Your task to perform on an android device: turn vacation reply on in the gmail app Image 0: 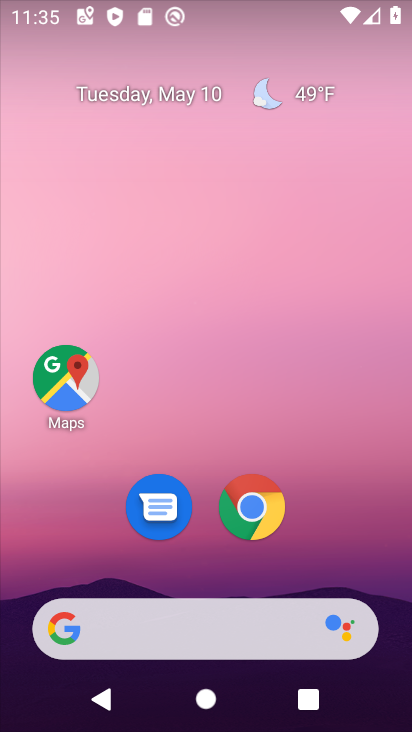
Step 0: drag from (221, 557) to (306, 69)
Your task to perform on an android device: turn vacation reply on in the gmail app Image 1: 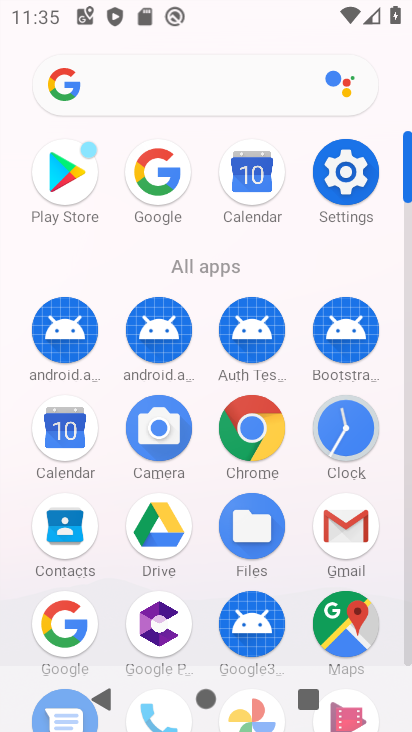
Step 1: click (337, 535)
Your task to perform on an android device: turn vacation reply on in the gmail app Image 2: 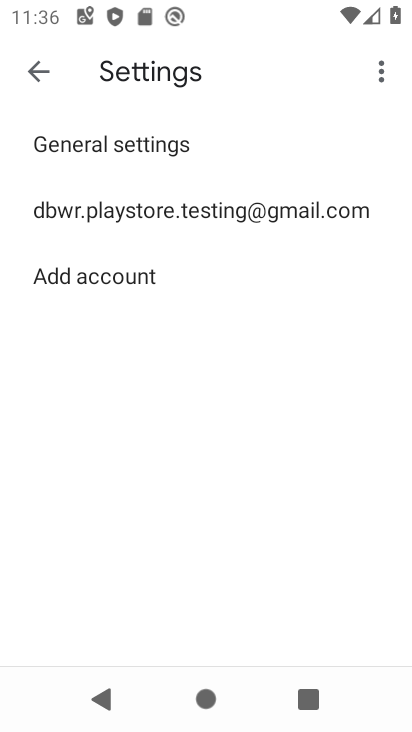
Step 2: click (103, 214)
Your task to perform on an android device: turn vacation reply on in the gmail app Image 3: 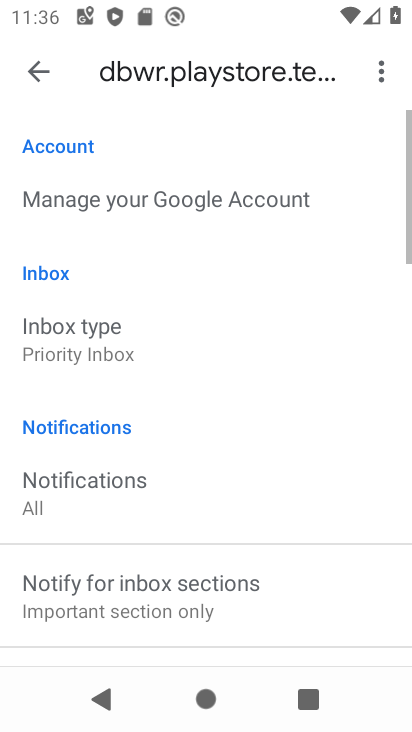
Step 3: drag from (190, 472) to (165, 206)
Your task to perform on an android device: turn vacation reply on in the gmail app Image 4: 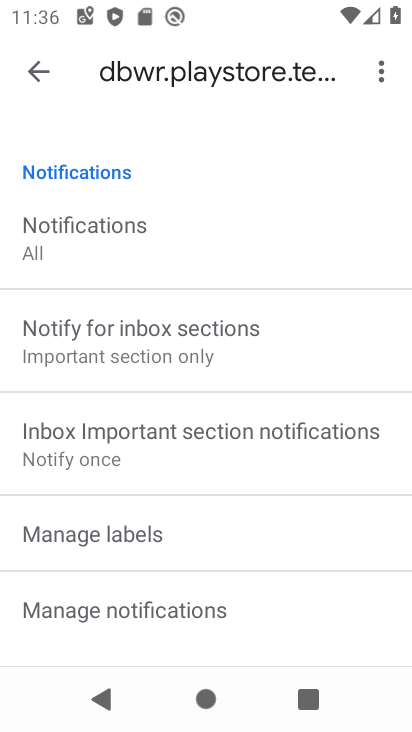
Step 4: drag from (105, 490) to (144, 65)
Your task to perform on an android device: turn vacation reply on in the gmail app Image 5: 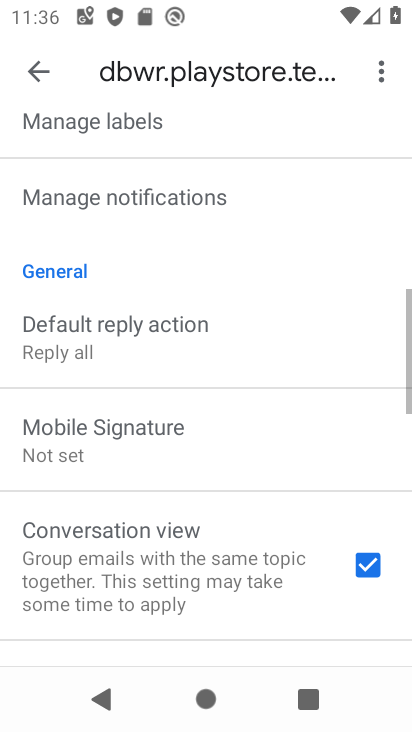
Step 5: drag from (172, 513) to (161, 164)
Your task to perform on an android device: turn vacation reply on in the gmail app Image 6: 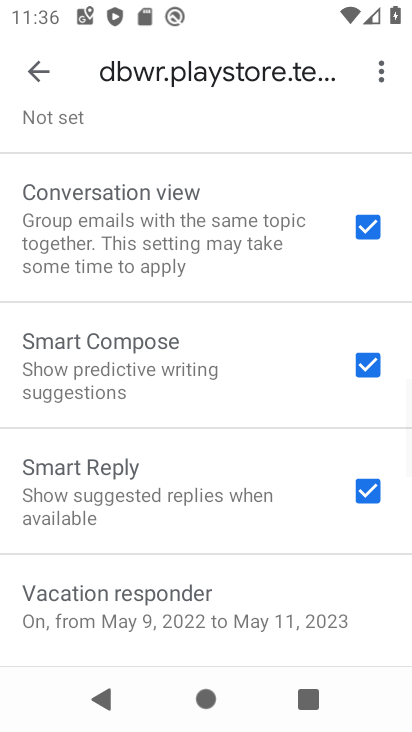
Step 6: drag from (175, 547) to (160, 361)
Your task to perform on an android device: turn vacation reply on in the gmail app Image 7: 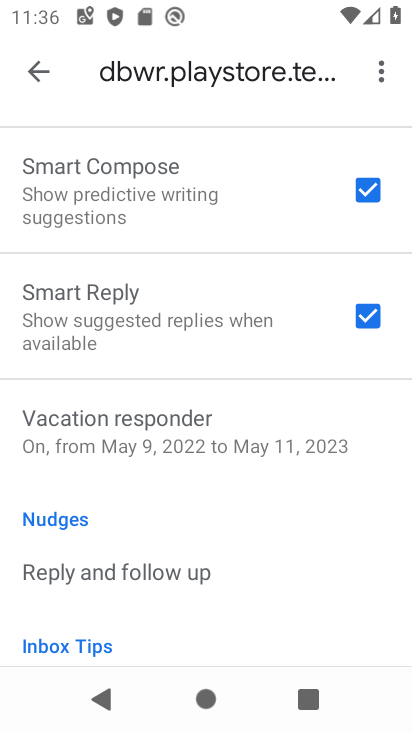
Step 7: click (193, 429)
Your task to perform on an android device: turn vacation reply on in the gmail app Image 8: 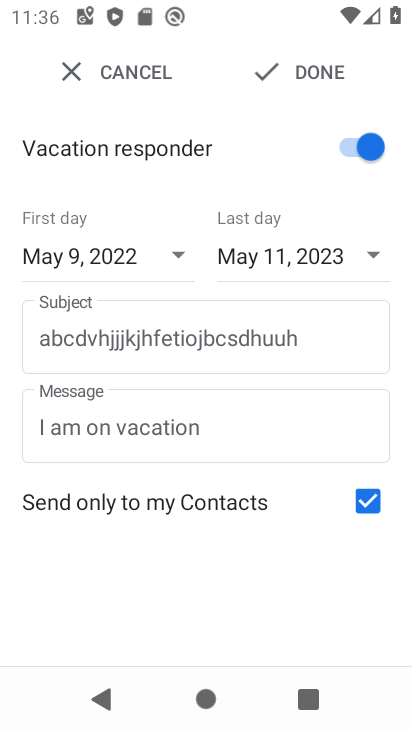
Step 8: task complete